Your task to perform on an android device: Go to display settings Image 0: 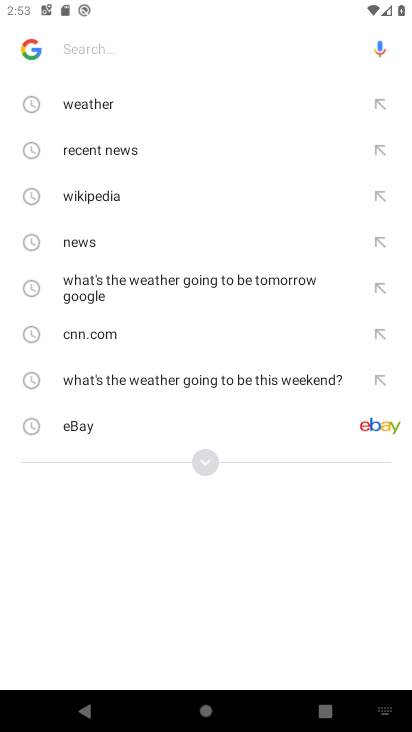
Step 0: press home button
Your task to perform on an android device: Go to display settings Image 1: 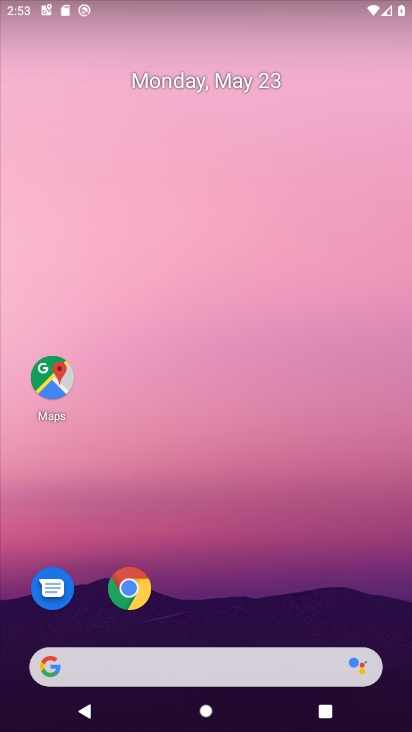
Step 1: drag from (192, 589) to (255, 153)
Your task to perform on an android device: Go to display settings Image 2: 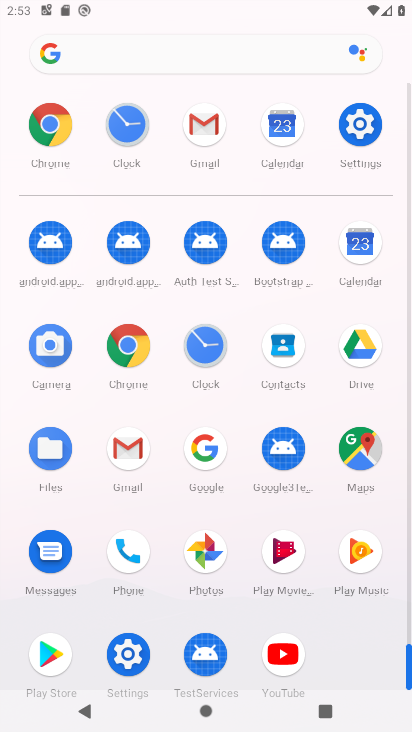
Step 2: click (364, 115)
Your task to perform on an android device: Go to display settings Image 3: 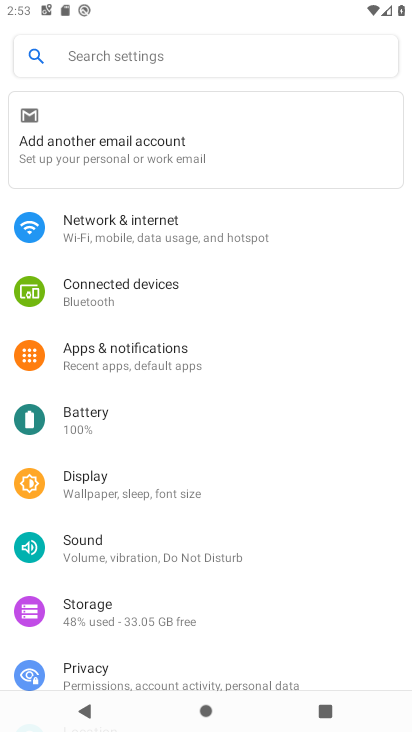
Step 3: click (115, 496)
Your task to perform on an android device: Go to display settings Image 4: 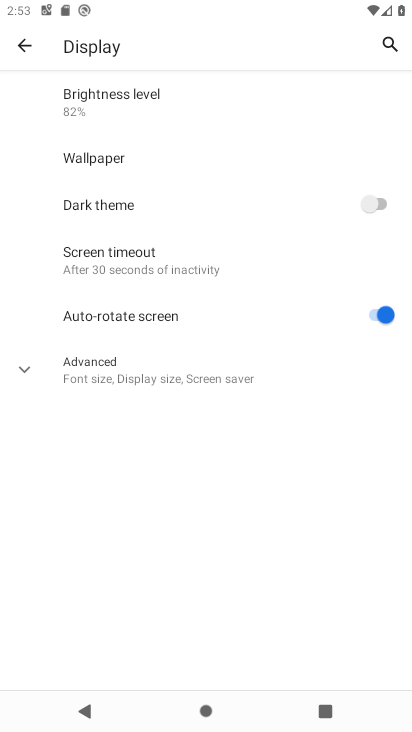
Step 4: task complete